Your task to perform on an android device: stop showing notifications on the lock screen Image 0: 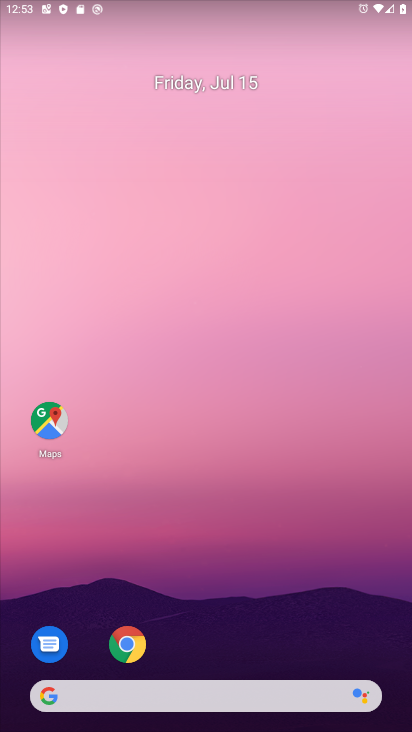
Step 0: drag from (391, 658) to (231, 29)
Your task to perform on an android device: stop showing notifications on the lock screen Image 1: 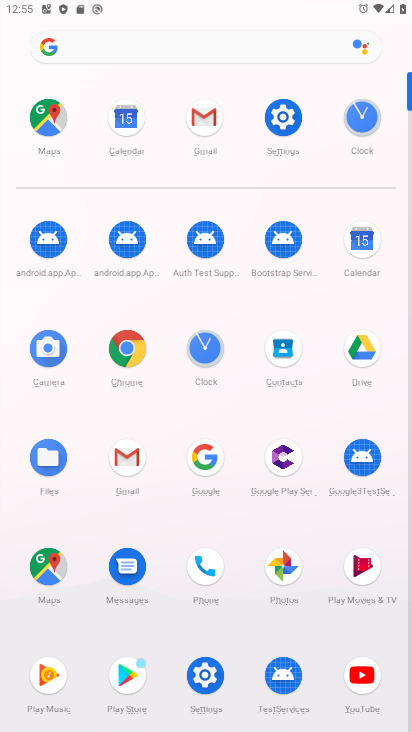
Step 1: click (209, 693)
Your task to perform on an android device: stop showing notifications on the lock screen Image 2: 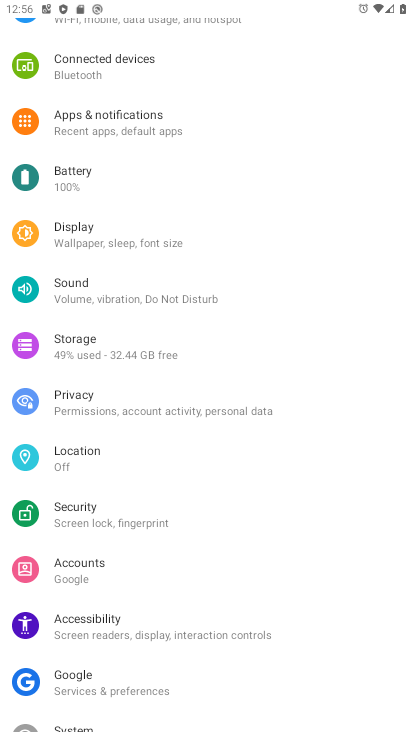
Step 2: click (130, 114)
Your task to perform on an android device: stop showing notifications on the lock screen Image 3: 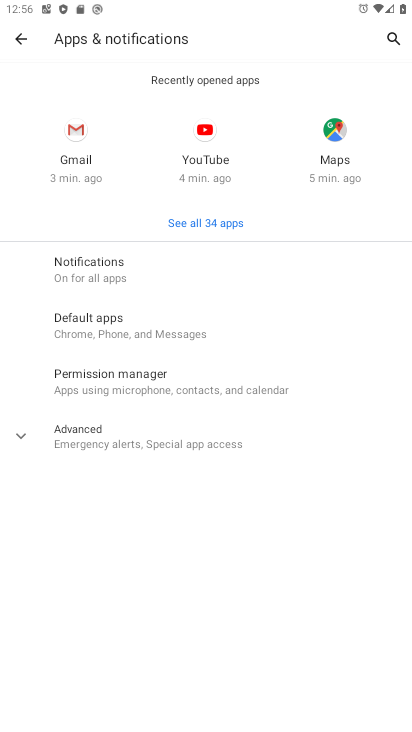
Step 3: click (94, 265)
Your task to perform on an android device: stop showing notifications on the lock screen Image 4: 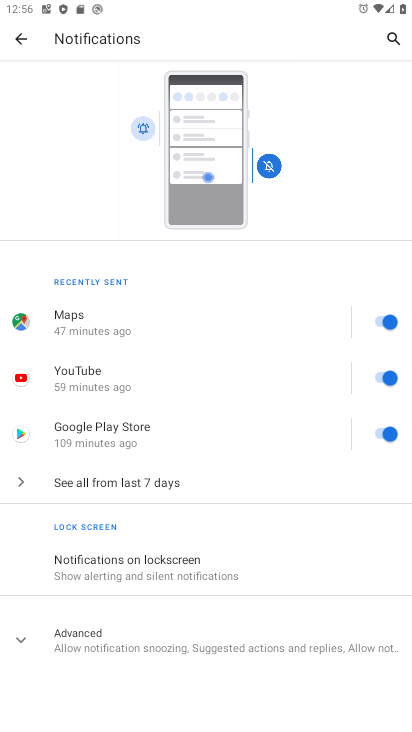
Step 4: click (214, 572)
Your task to perform on an android device: stop showing notifications on the lock screen Image 5: 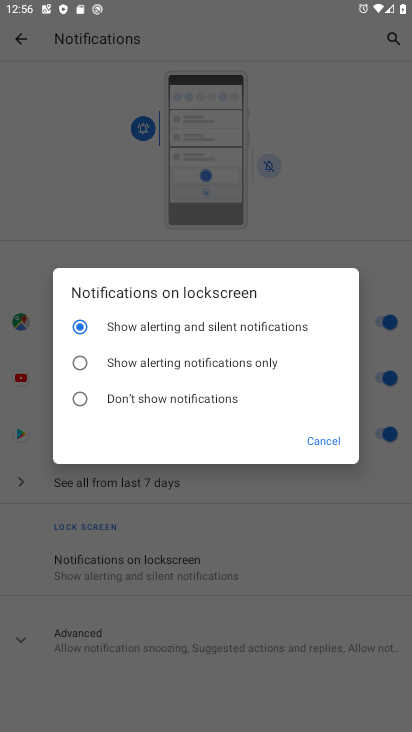
Step 5: click (104, 397)
Your task to perform on an android device: stop showing notifications on the lock screen Image 6: 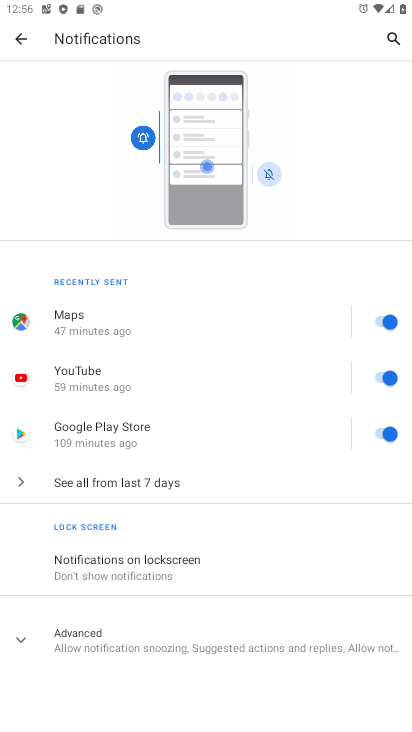
Step 6: task complete